Your task to perform on an android device: When is my next meeting? Image 0: 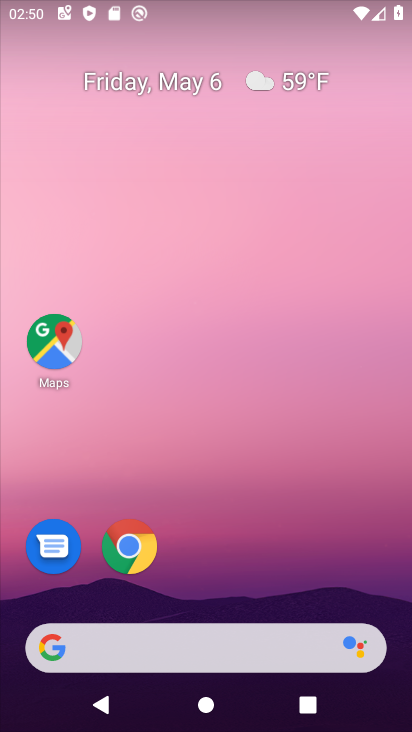
Step 0: drag from (301, 483) to (311, 53)
Your task to perform on an android device: When is my next meeting? Image 1: 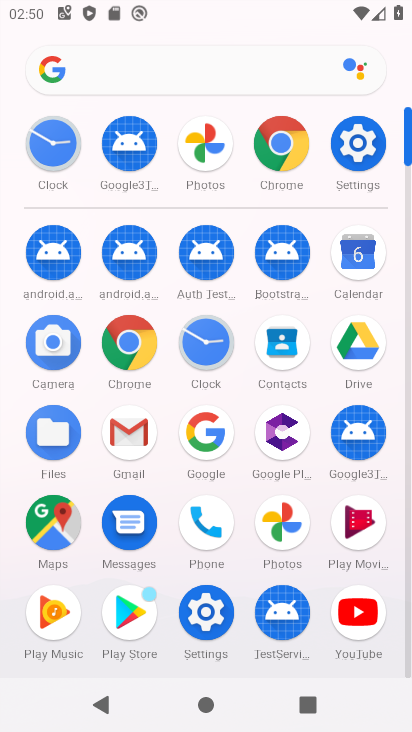
Step 1: click (365, 252)
Your task to perform on an android device: When is my next meeting? Image 2: 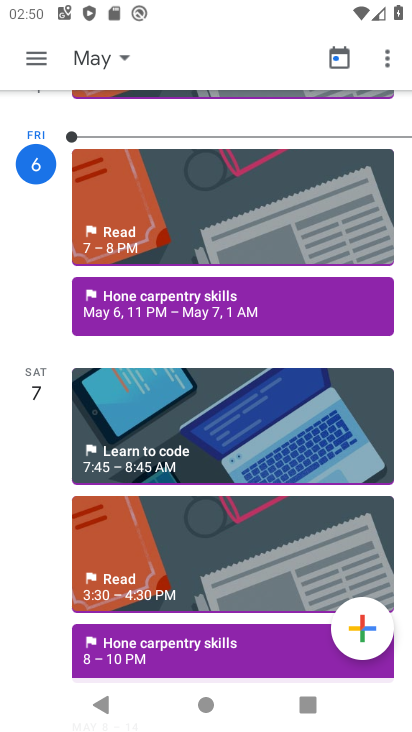
Step 2: click (35, 56)
Your task to perform on an android device: When is my next meeting? Image 3: 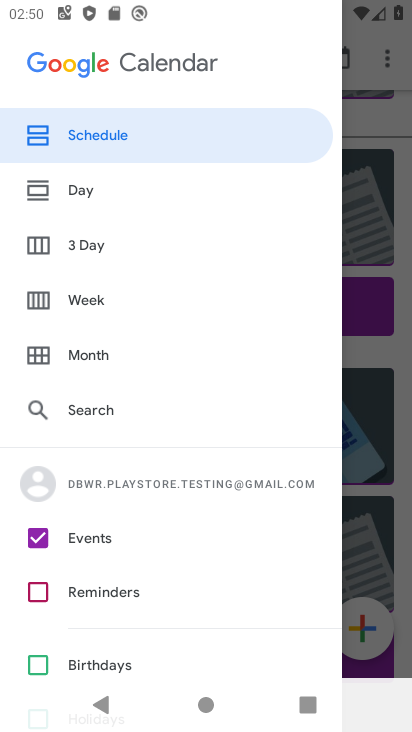
Step 3: click (404, 208)
Your task to perform on an android device: When is my next meeting? Image 4: 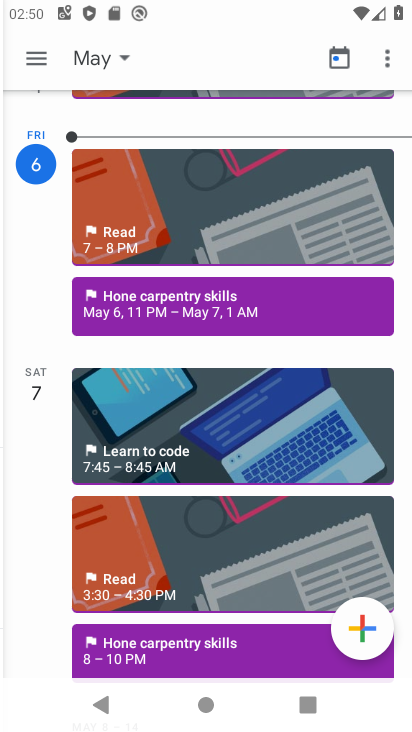
Step 4: click (404, 208)
Your task to perform on an android device: When is my next meeting? Image 5: 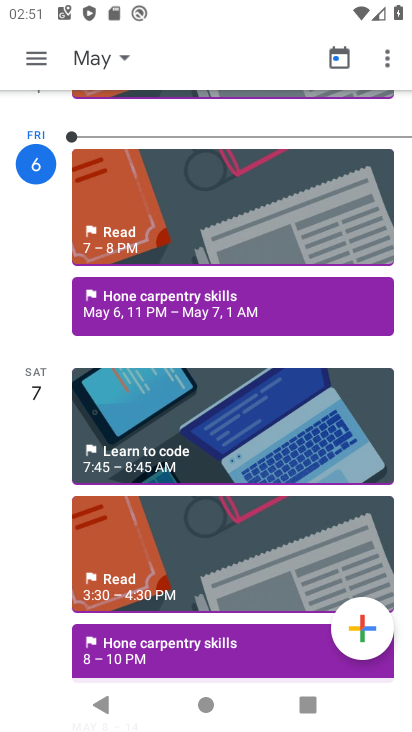
Step 5: task complete